Your task to perform on an android device: Open the stopwatch Image 0: 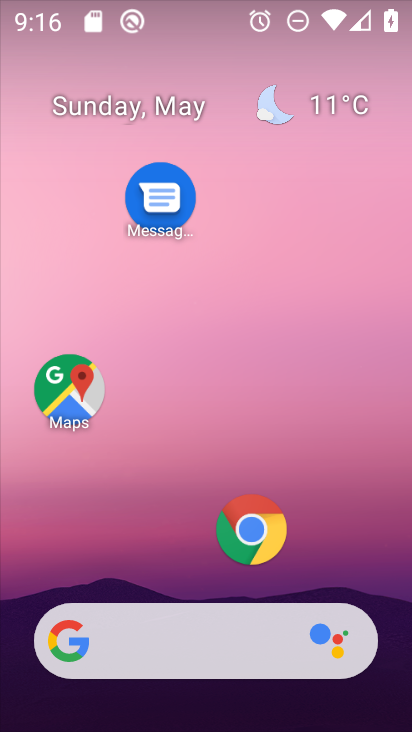
Step 0: drag from (178, 597) to (275, 180)
Your task to perform on an android device: Open the stopwatch Image 1: 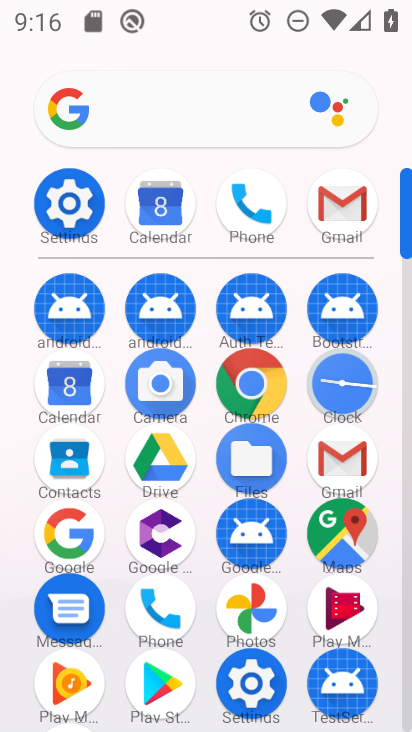
Step 1: click (338, 373)
Your task to perform on an android device: Open the stopwatch Image 2: 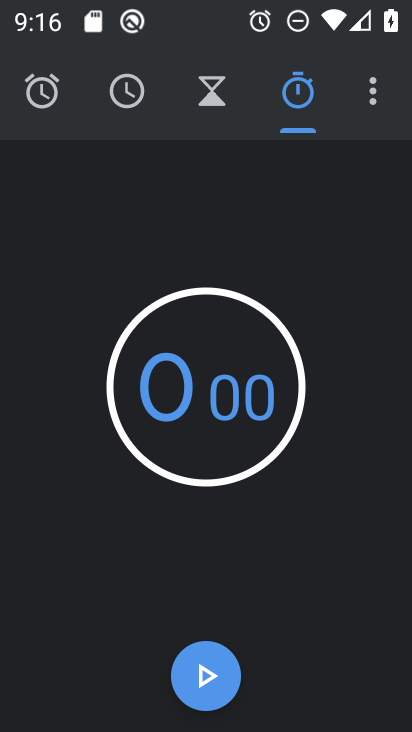
Step 2: click (203, 678)
Your task to perform on an android device: Open the stopwatch Image 3: 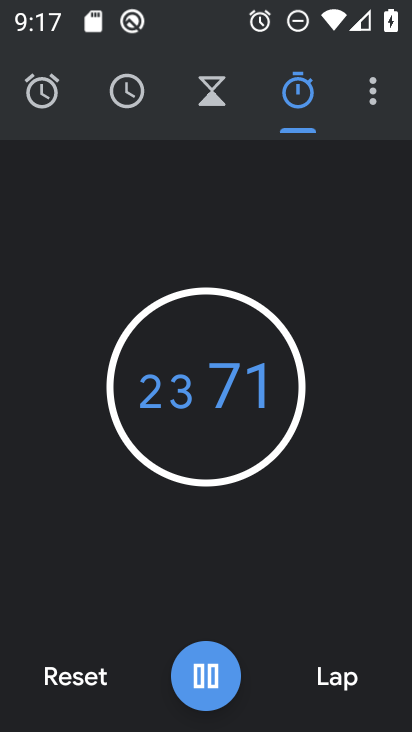
Step 3: click (194, 677)
Your task to perform on an android device: Open the stopwatch Image 4: 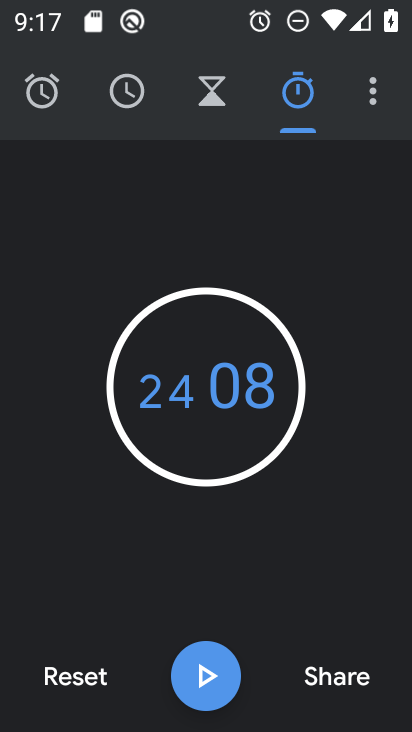
Step 4: task complete